Your task to perform on an android device: How much does a 3 bedroom apartment rent for in Miami? Image 0: 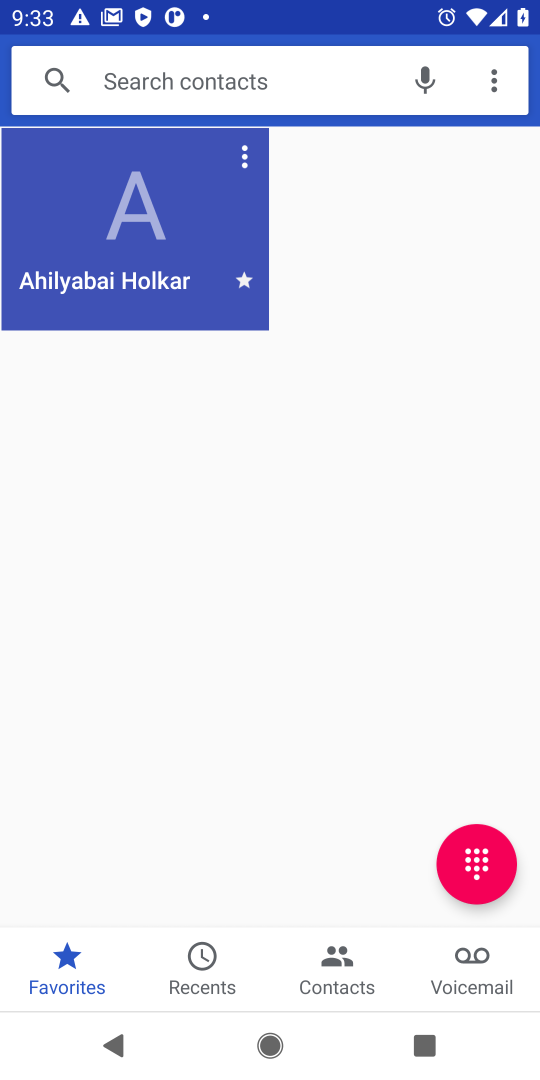
Step 0: press home button
Your task to perform on an android device: How much does a 3 bedroom apartment rent for in Miami? Image 1: 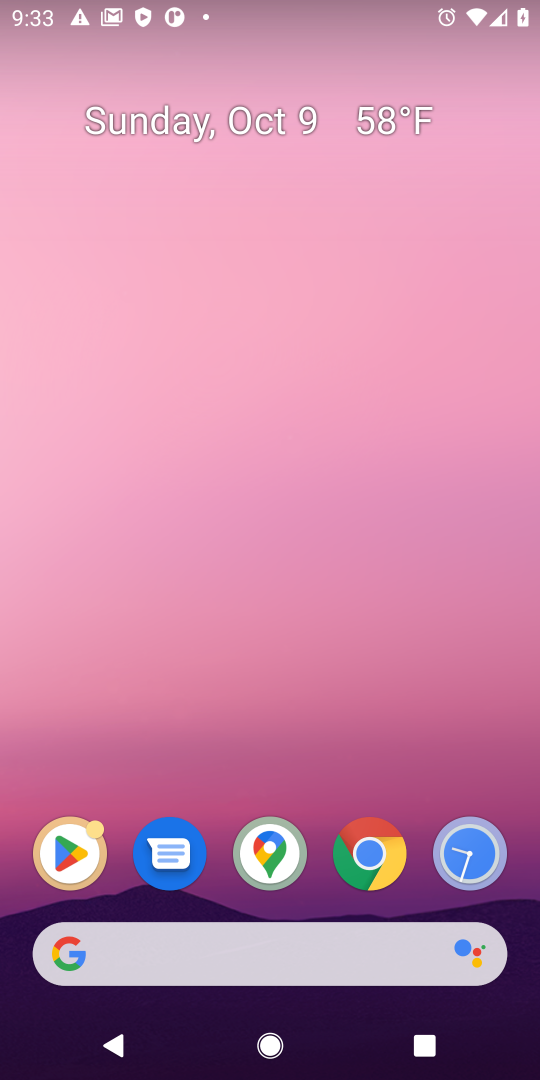
Step 1: click (356, 855)
Your task to perform on an android device: How much does a 3 bedroom apartment rent for in Miami? Image 2: 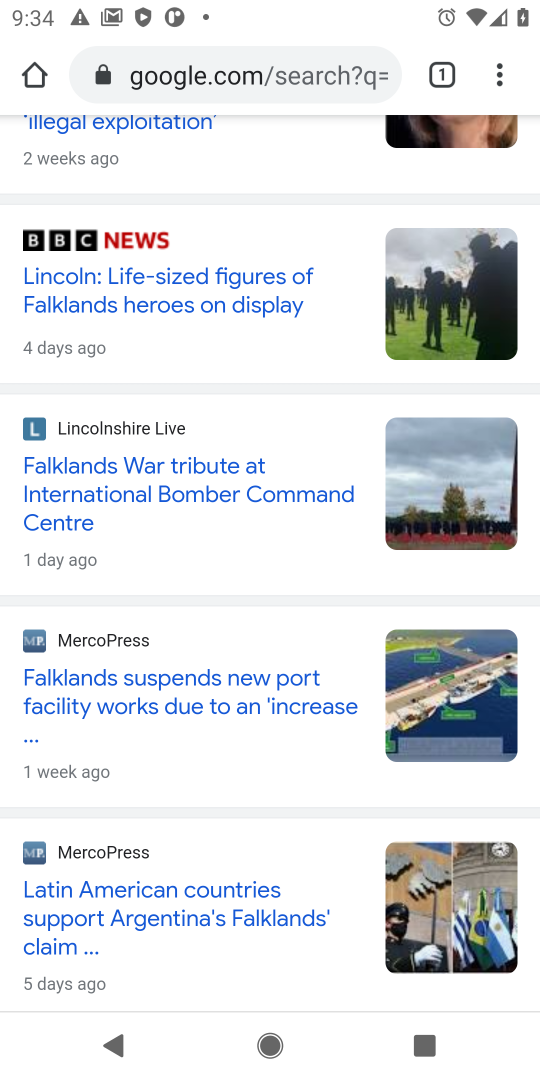
Step 2: click (288, 71)
Your task to perform on an android device: How much does a 3 bedroom apartment rent for in Miami? Image 3: 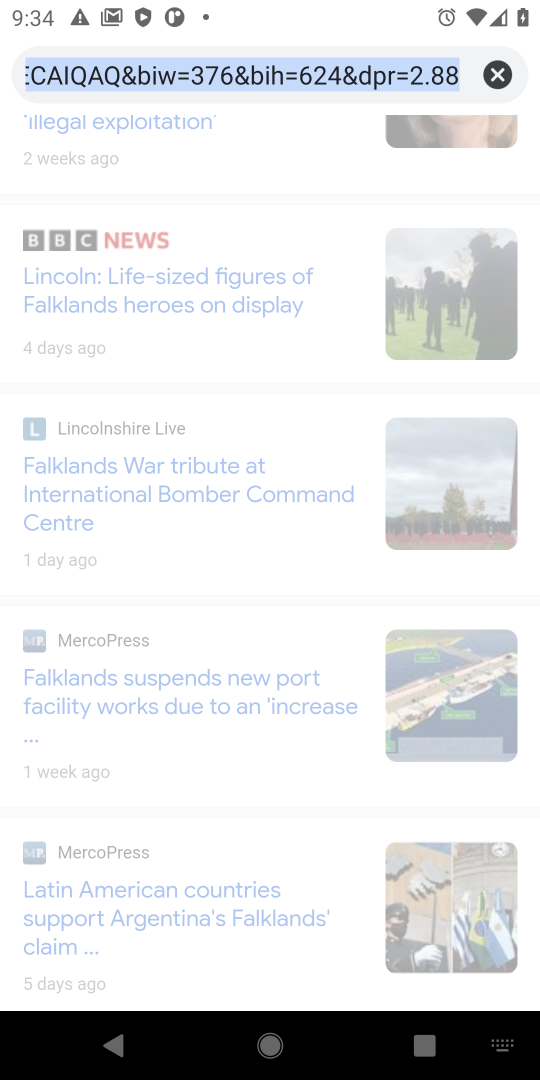
Step 3: type "3 bedroom apartment rent for in miami"
Your task to perform on an android device: How much does a 3 bedroom apartment rent for in Miami? Image 4: 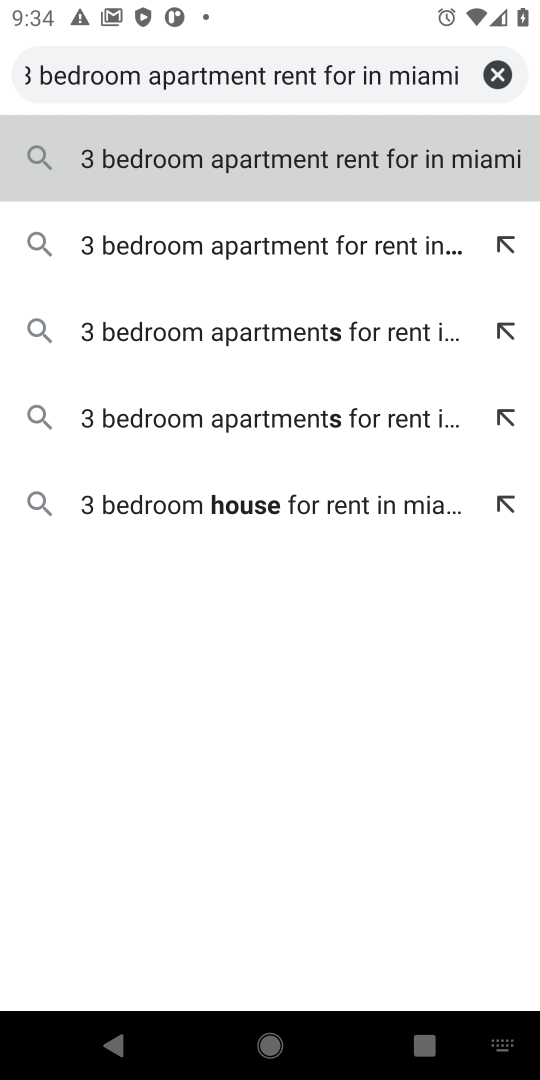
Step 4: click (397, 168)
Your task to perform on an android device: How much does a 3 bedroom apartment rent for in Miami? Image 5: 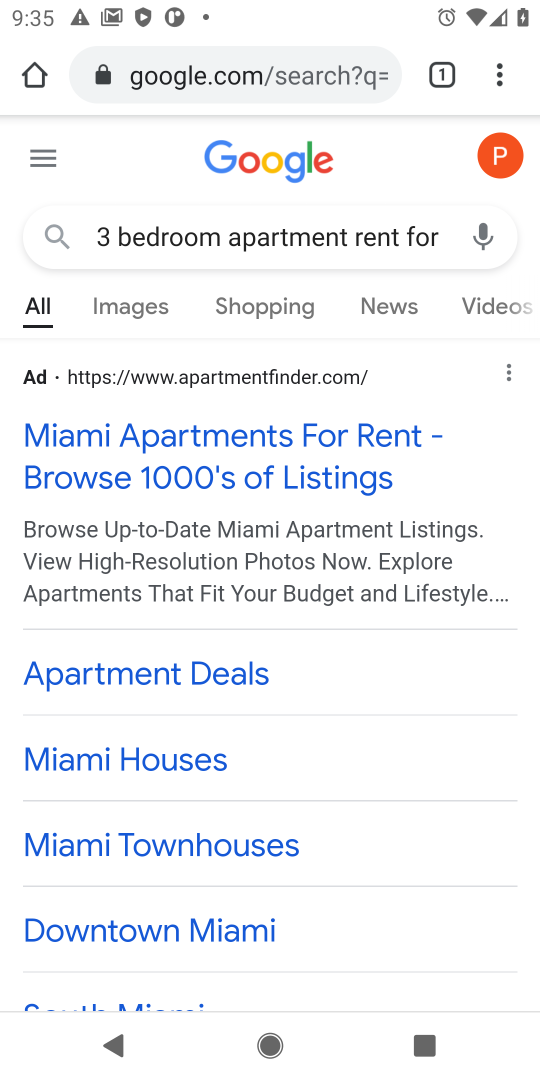
Step 5: drag from (462, 679) to (416, 191)
Your task to perform on an android device: How much does a 3 bedroom apartment rent for in Miami? Image 6: 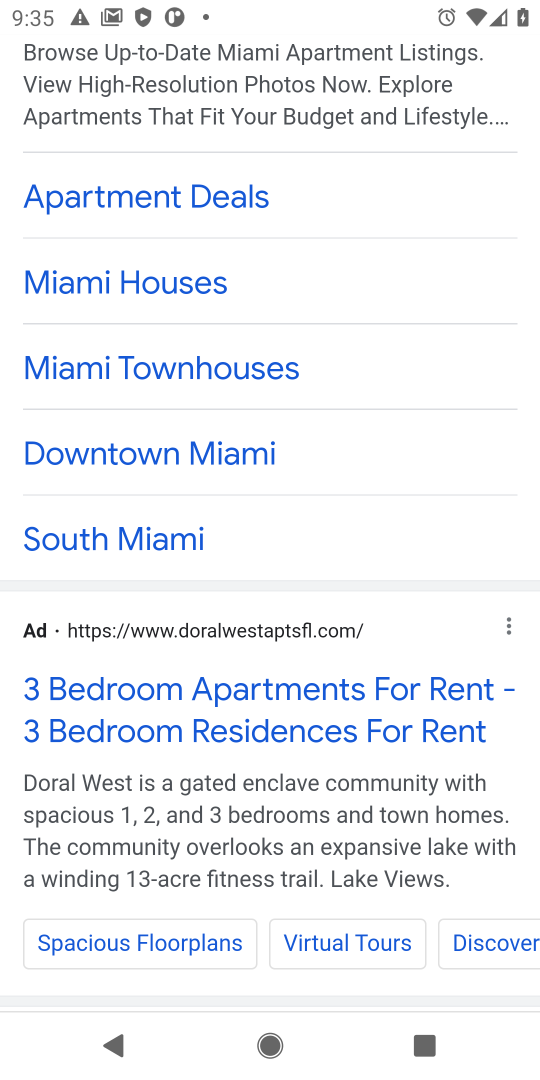
Step 6: drag from (347, 721) to (311, 293)
Your task to perform on an android device: How much does a 3 bedroom apartment rent for in Miami? Image 7: 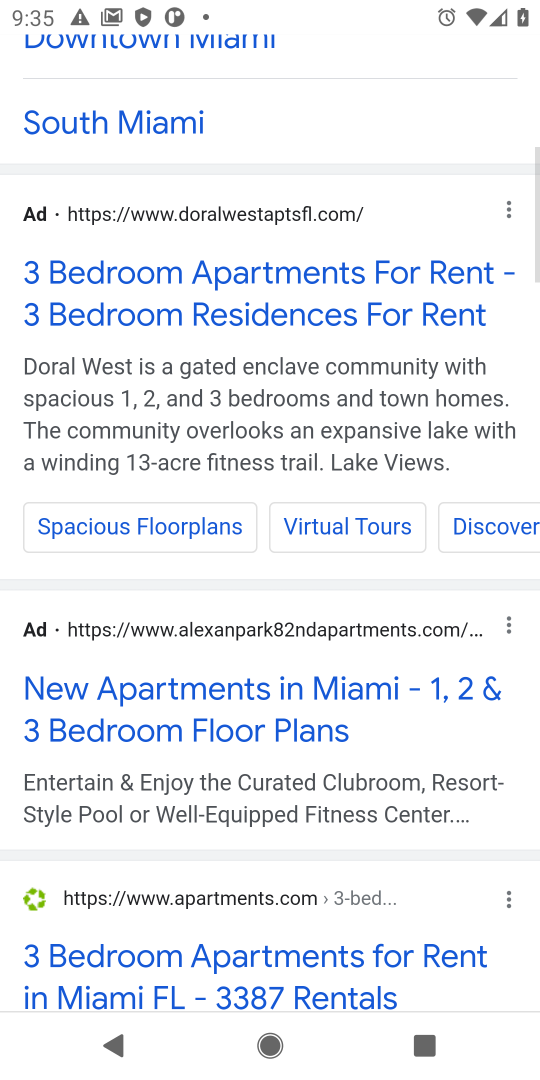
Step 7: drag from (375, 919) to (271, 444)
Your task to perform on an android device: How much does a 3 bedroom apartment rent for in Miami? Image 8: 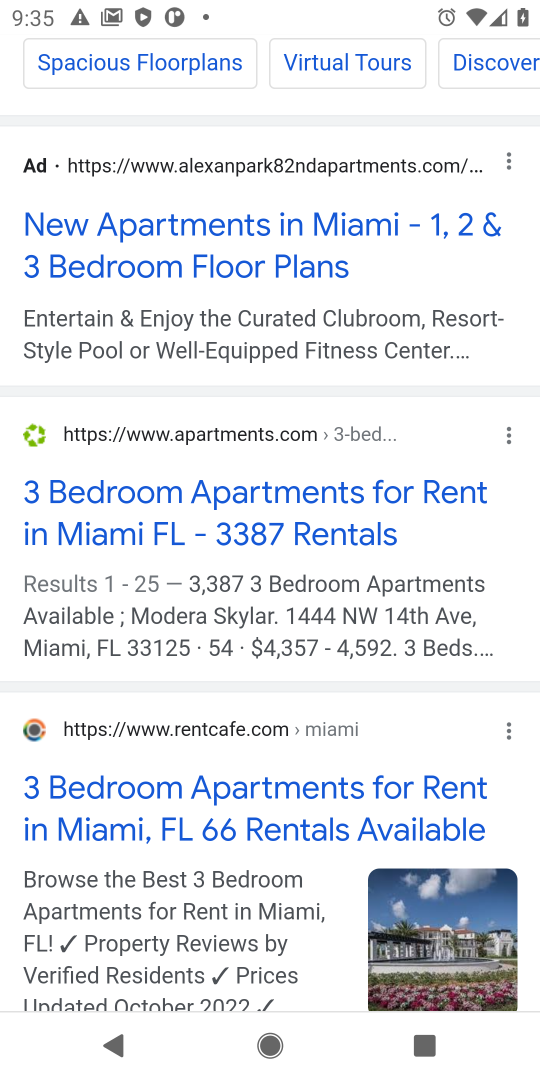
Step 8: click (223, 512)
Your task to perform on an android device: How much does a 3 bedroom apartment rent for in Miami? Image 9: 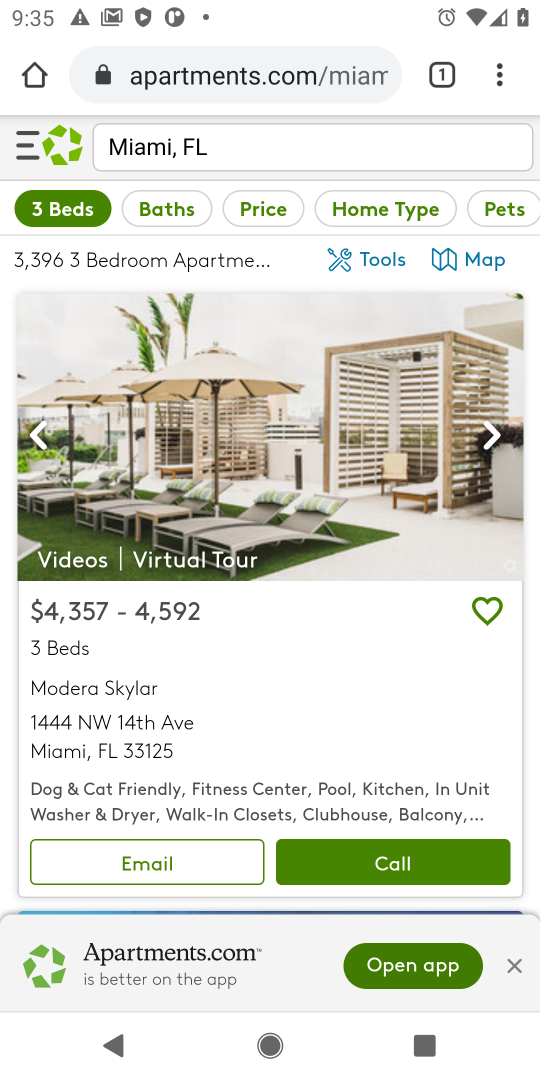
Step 9: task complete